Your task to perform on an android device: turn smart compose on in the gmail app Image 0: 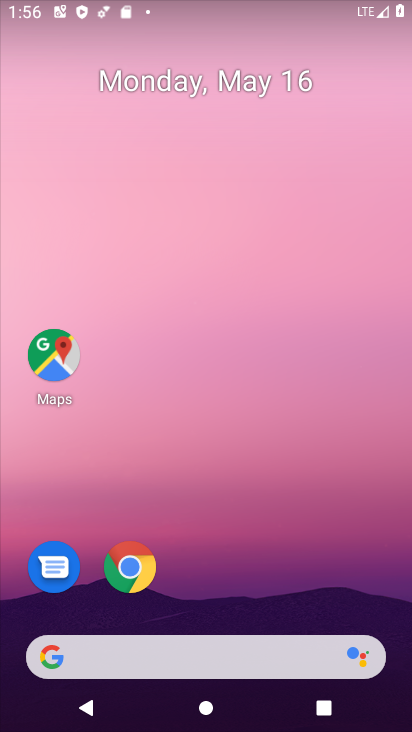
Step 0: drag from (227, 617) to (188, 144)
Your task to perform on an android device: turn smart compose on in the gmail app Image 1: 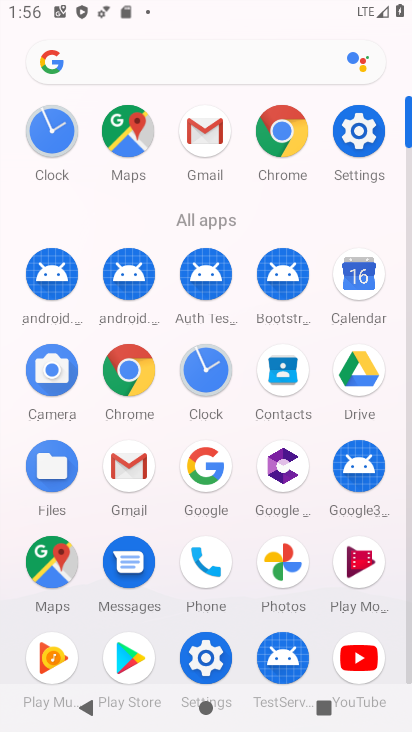
Step 1: click (140, 483)
Your task to perform on an android device: turn smart compose on in the gmail app Image 2: 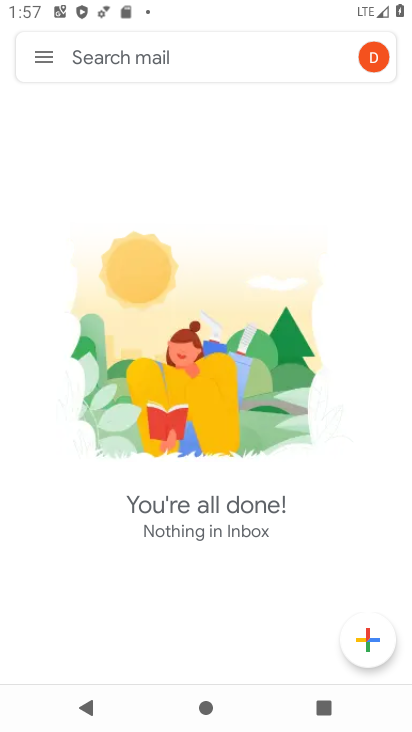
Step 2: click (50, 51)
Your task to perform on an android device: turn smart compose on in the gmail app Image 3: 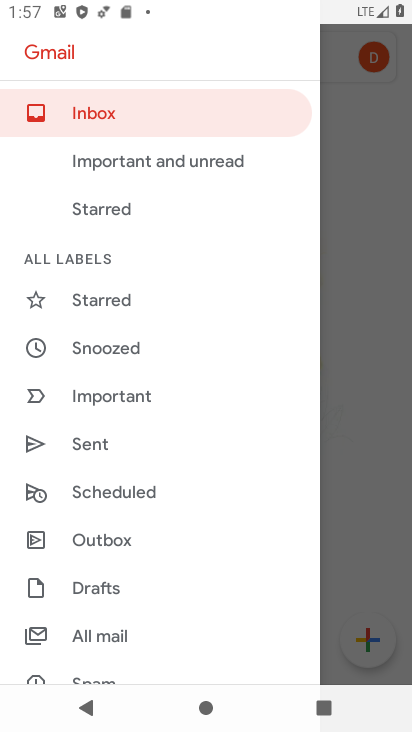
Step 3: drag from (160, 656) to (192, 184)
Your task to perform on an android device: turn smart compose on in the gmail app Image 4: 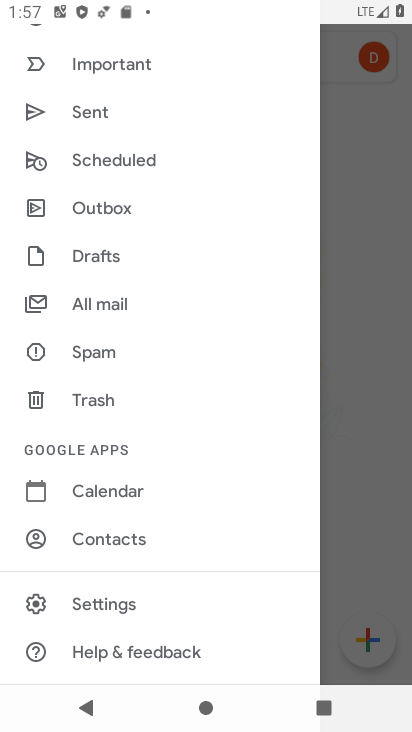
Step 4: click (202, 608)
Your task to perform on an android device: turn smart compose on in the gmail app Image 5: 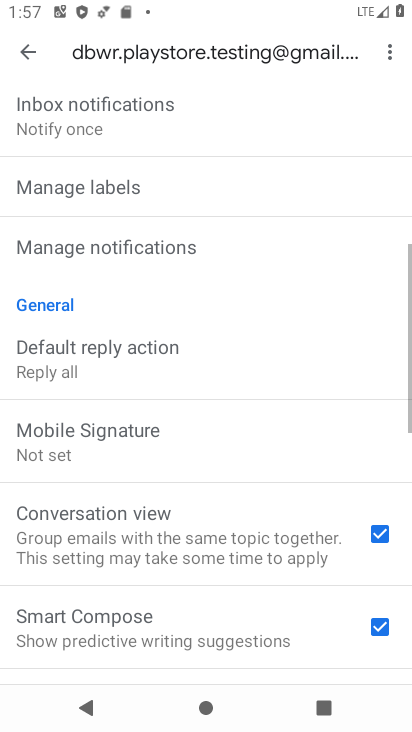
Step 5: task complete